Your task to perform on an android device: Open the phone app and click the voicemail tab. Image 0: 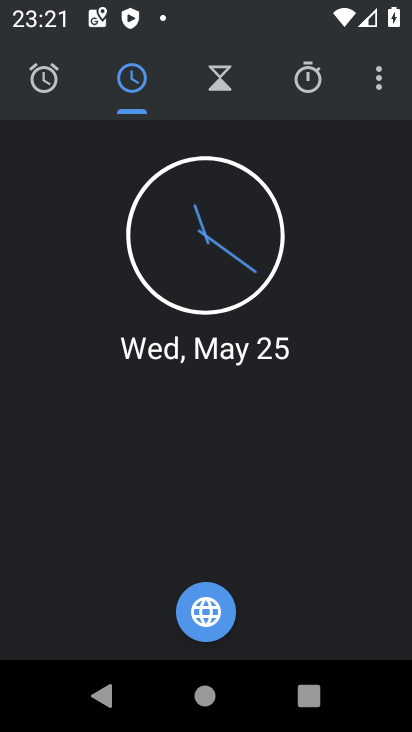
Step 0: press home button
Your task to perform on an android device: Open the phone app and click the voicemail tab. Image 1: 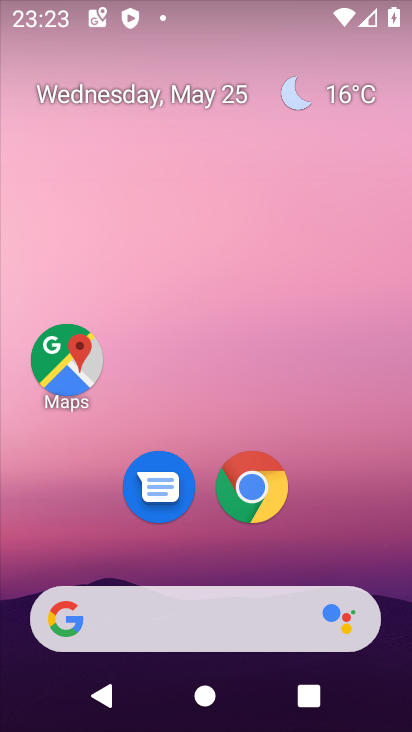
Step 1: drag from (258, 698) to (264, 278)
Your task to perform on an android device: Open the phone app and click the voicemail tab. Image 2: 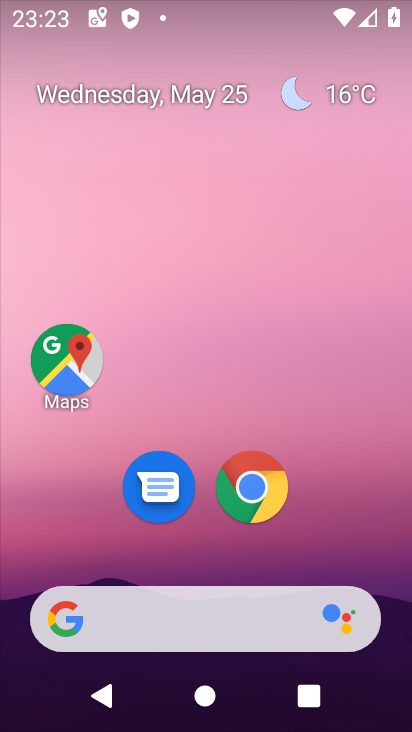
Step 2: drag from (266, 697) to (266, 86)
Your task to perform on an android device: Open the phone app and click the voicemail tab. Image 3: 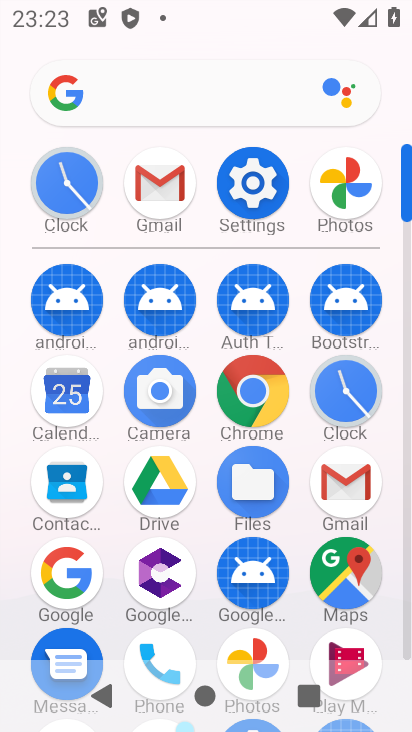
Step 3: drag from (265, 641) to (215, 106)
Your task to perform on an android device: Open the phone app and click the voicemail tab. Image 4: 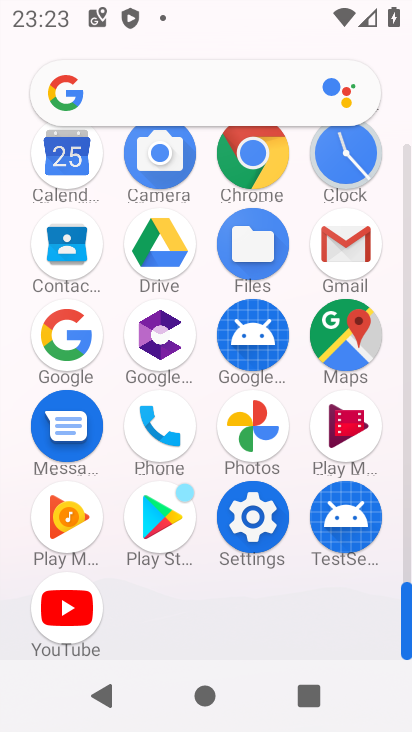
Step 4: click (169, 416)
Your task to perform on an android device: Open the phone app and click the voicemail tab. Image 5: 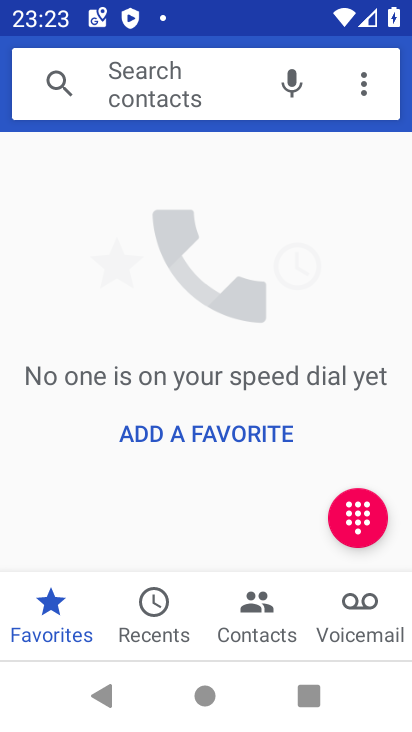
Step 5: click (350, 617)
Your task to perform on an android device: Open the phone app and click the voicemail tab. Image 6: 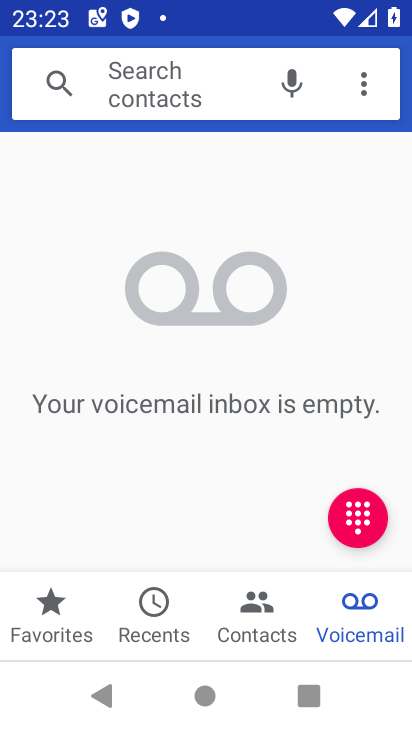
Step 6: task complete